Your task to perform on an android device: Open Google Maps and go to "Timeline" Image 0: 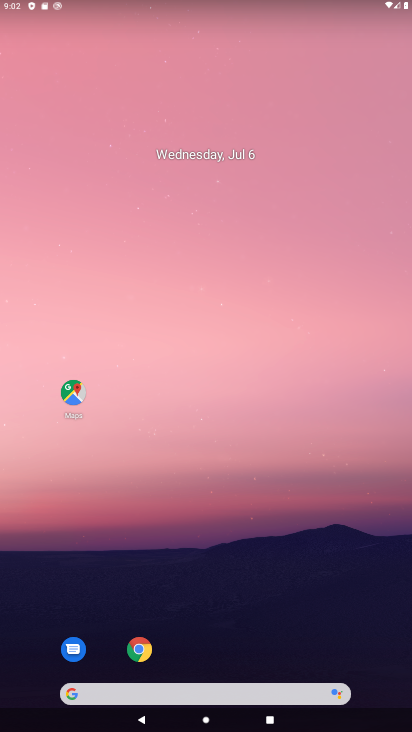
Step 0: drag from (167, 611) to (236, 120)
Your task to perform on an android device: Open Google Maps and go to "Timeline" Image 1: 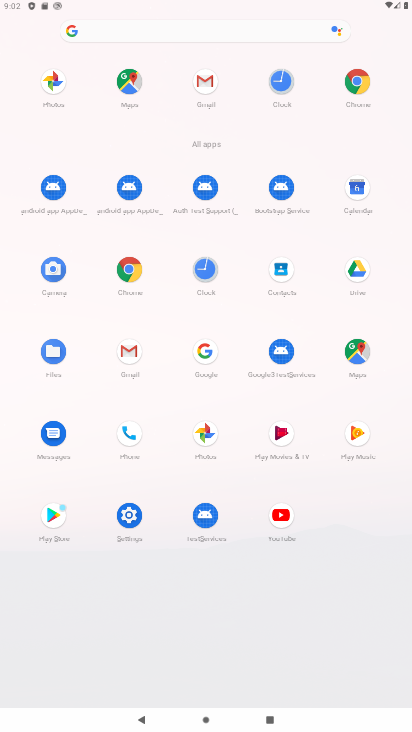
Step 1: click (356, 348)
Your task to perform on an android device: Open Google Maps and go to "Timeline" Image 2: 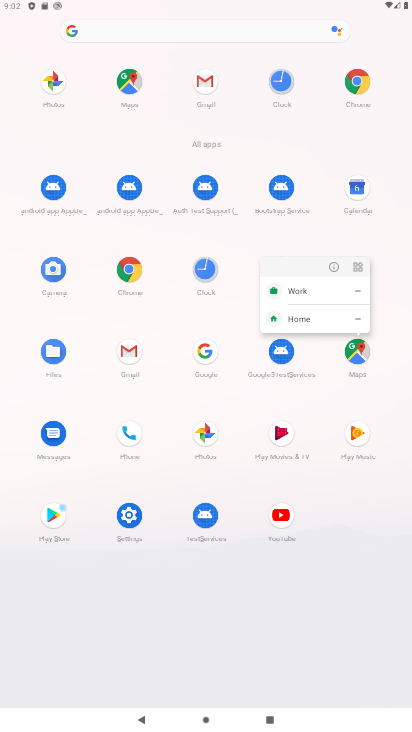
Step 2: click (334, 263)
Your task to perform on an android device: Open Google Maps and go to "Timeline" Image 3: 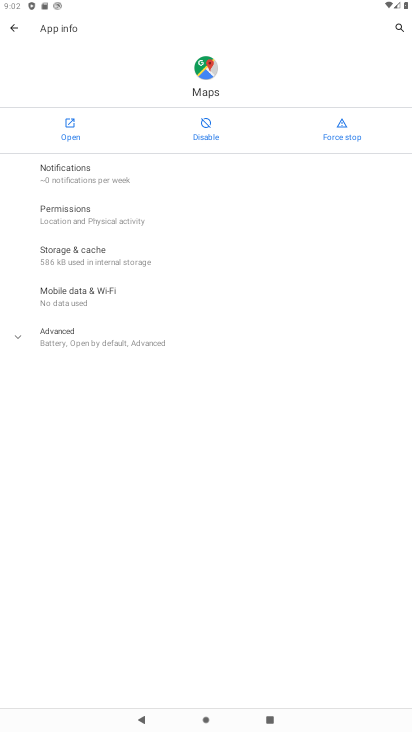
Step 3: click (65, 128)
Your task to perform on an android device: Open Google Maps and go to "Timeline" Image 4: 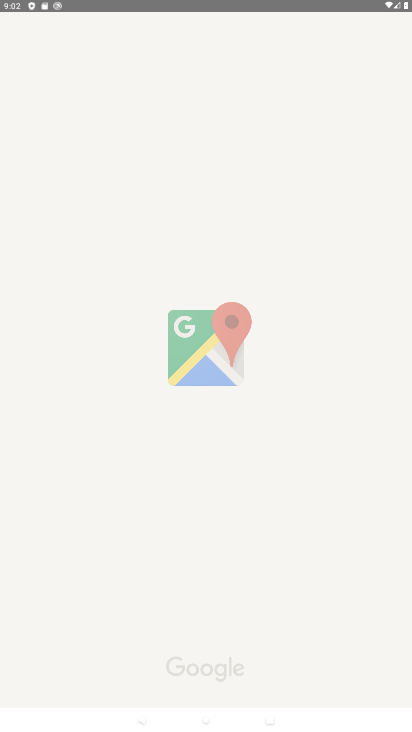
Step 4: drag from (239, 629) to (206, 365)
Your task to perform on an android device: Open Google Maps and go to "Timeline" Image 5: 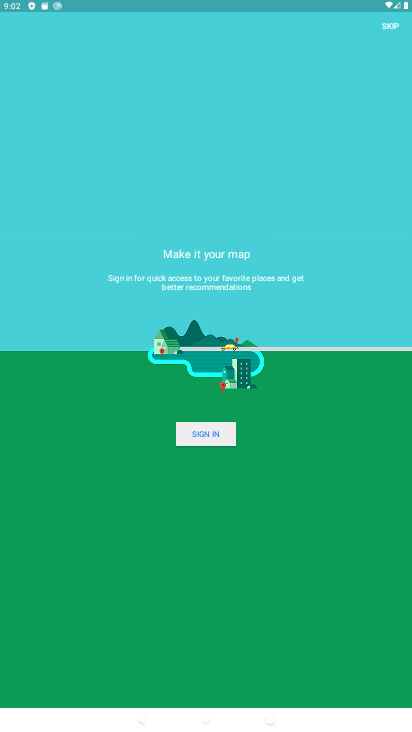
Step 5: click (386, 23)
Your task to perform on an android device: Open Google Maps and go to "Timeline" Image 6: 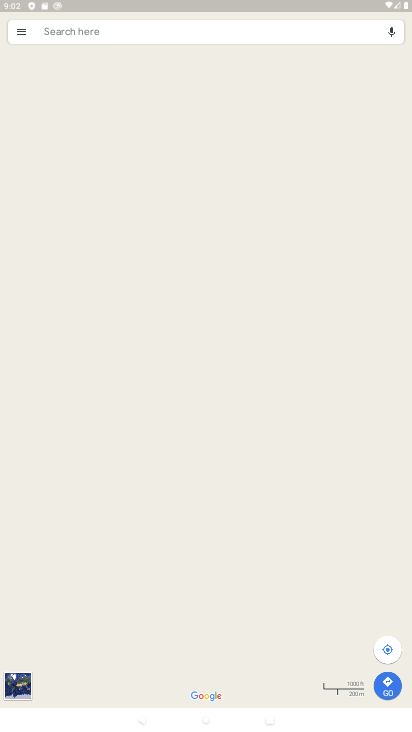
Step 6: click (387, 24)
Your task to perform on an android device: Open Google Maps and go to "Timeline" Image 7: 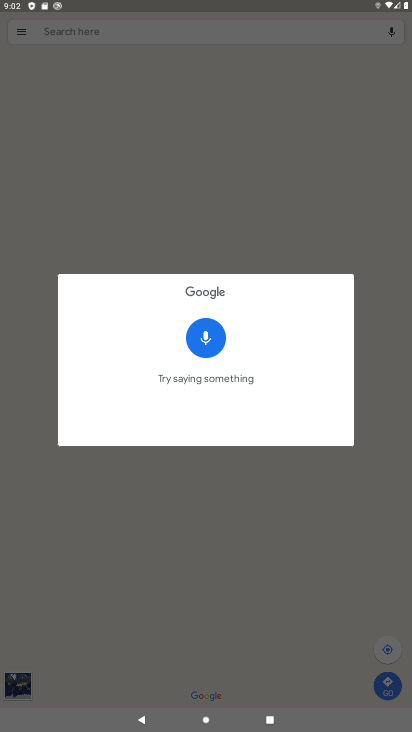
Step 7: press back button
Your task to perform on an android device: Open Google Maps and go to "Timeline" Image 8: 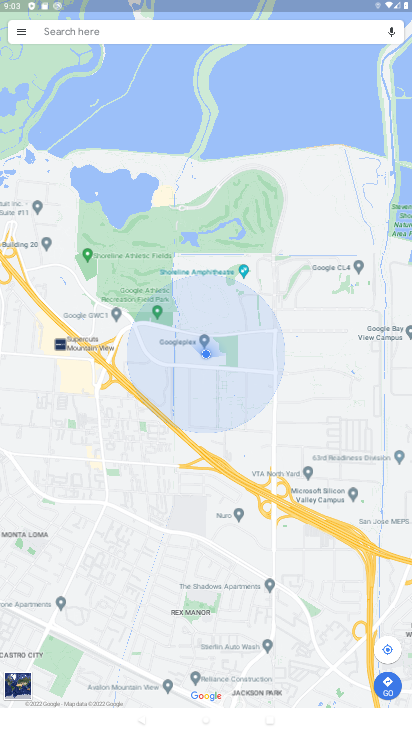
Step 8: click (16, 35)
Your task to perform on an android device: Open Google Maps and go to "Timeline" Image 9: 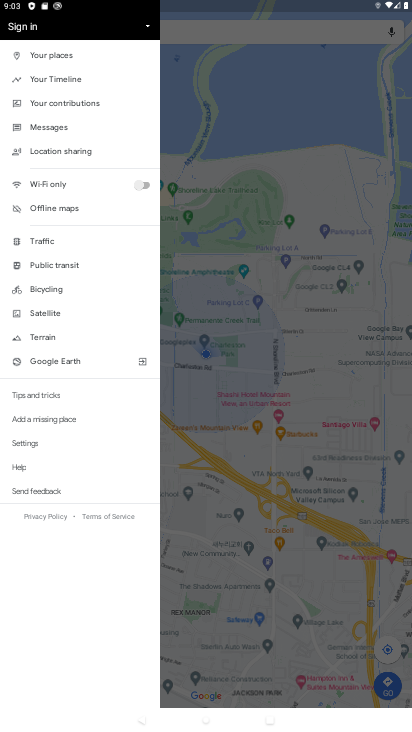
Step 9: click (55, 80)
Your task to perform on an android device: Open Google Maps and go to "Timeline" Image 10: 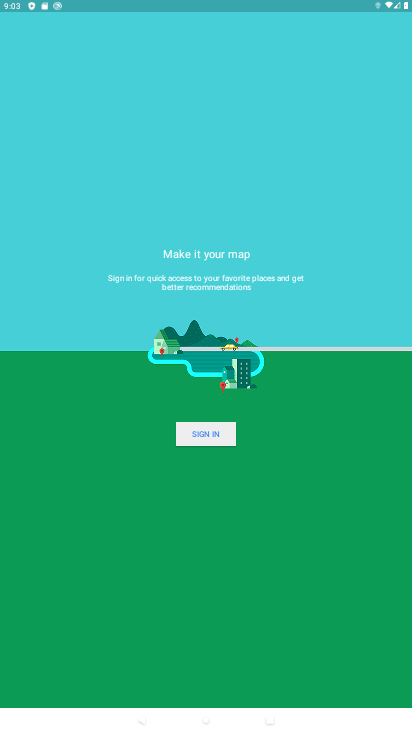
Step 10: task complete